Your task to perform on an android device: Open notification settings Image 0: 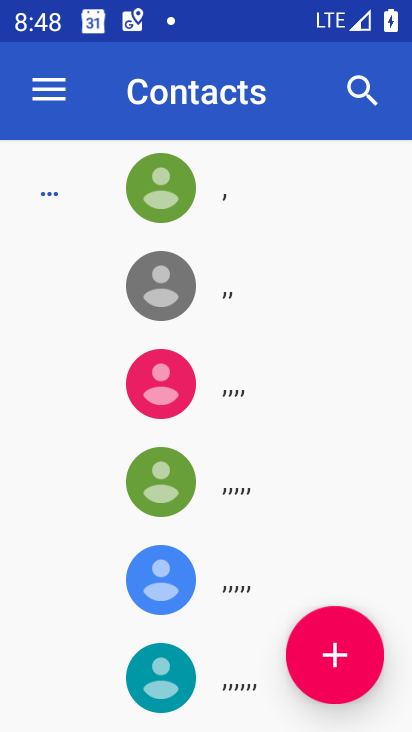
Step 0: press home button
Your task to perform on an android device: Open notification settings Image 1: 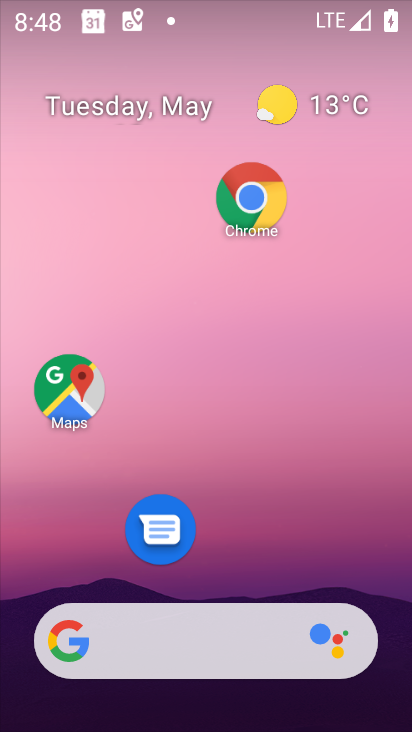
Step 1: drag from (303, 544) to (377, 39)
Your task to perform on an android device: Open notification settings Image 2: 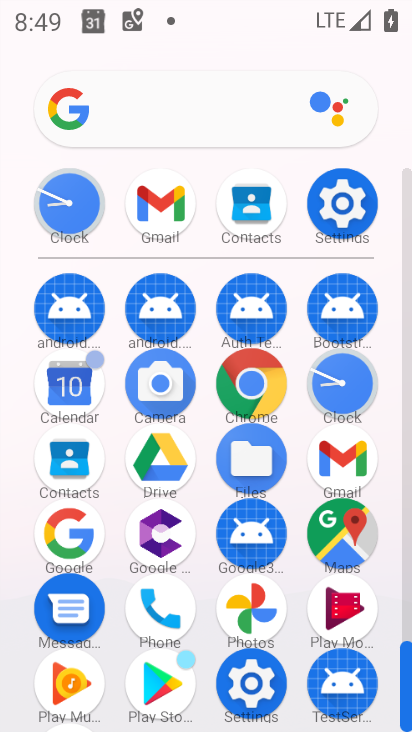
Step 2: click (359, 257)
Your task to perform on an android device: Open notification settings Image 3: 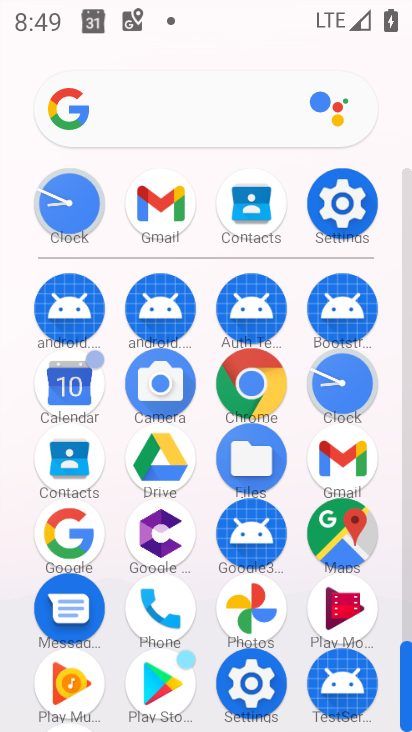
Step 3: click (361, 203)
Your task to perform on an android device: Open notification settings Image 4: 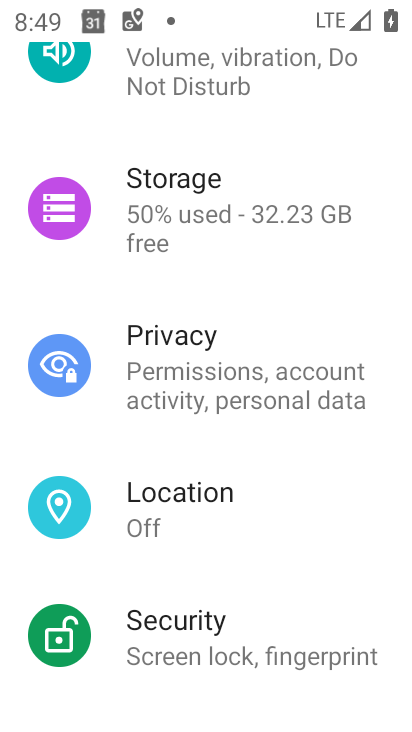
Step 4: drag from (280, 229) to (90, 695)
Your task to perform on an android device: Open notification settings Image 5: 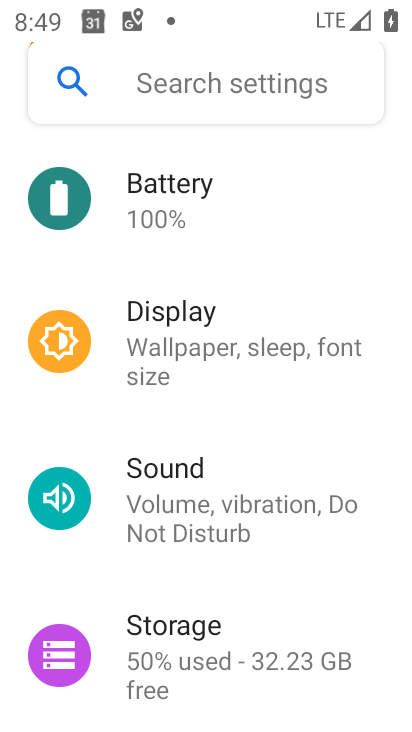
Step 5: click (268, 277)
Your task to perform on an android device: Open notification settings Image 6: 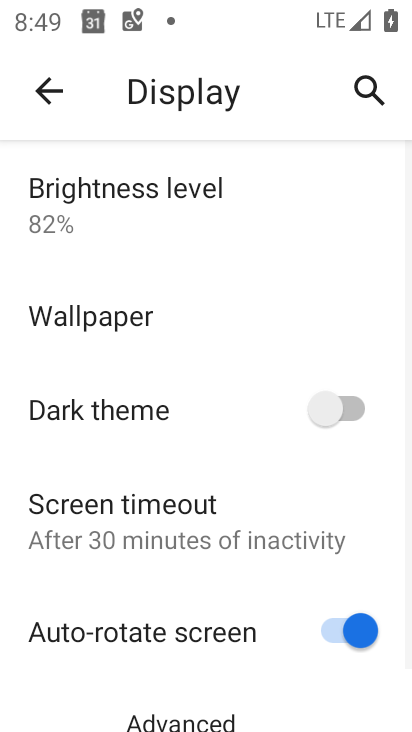
Step 6: click (64, 95)
Your task to perform on an android device: Open notification settings Image 7: 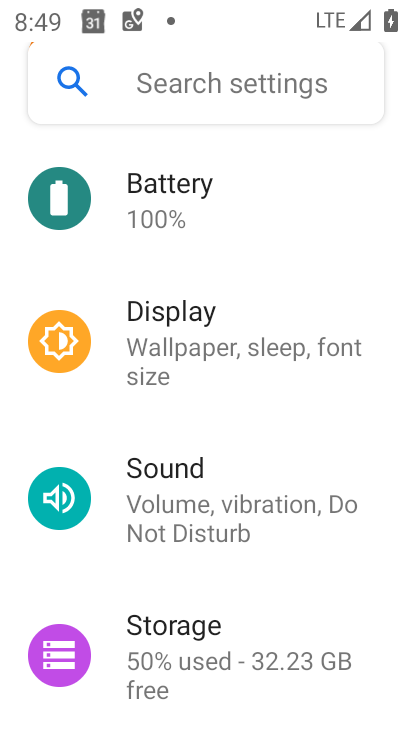
Step 7: drag from (172, 280) to (149, 662)
Your task to perform on an android device: Open notification settings Image 8: 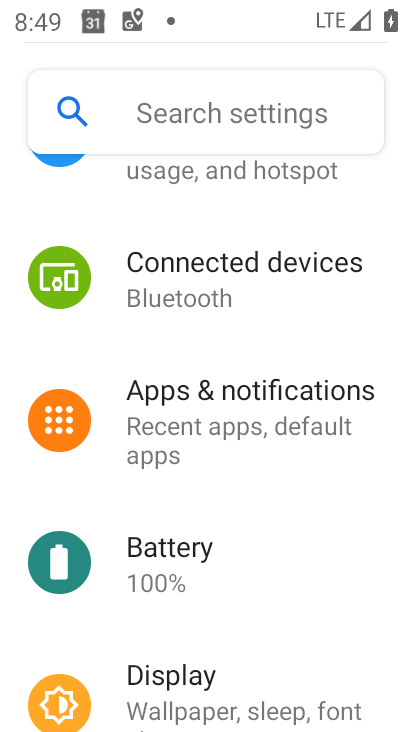
Step 8: click (279, 384)
Your task to perform on an android device: Open notification settings Image 9: 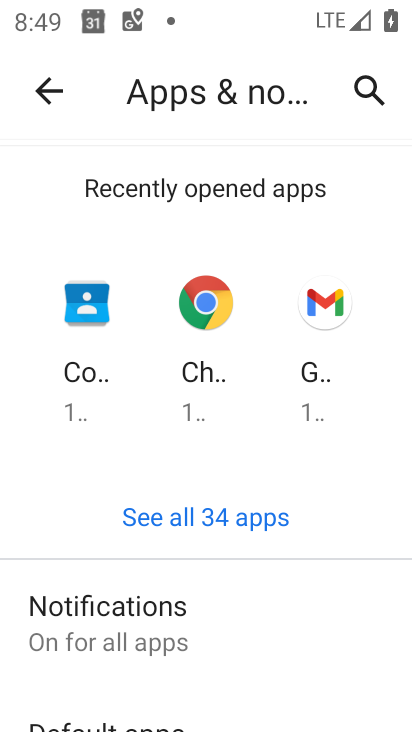
Step 9: task complete